Your task to perform on an android device: see tabs open on other devices in the chrome app Image 0: 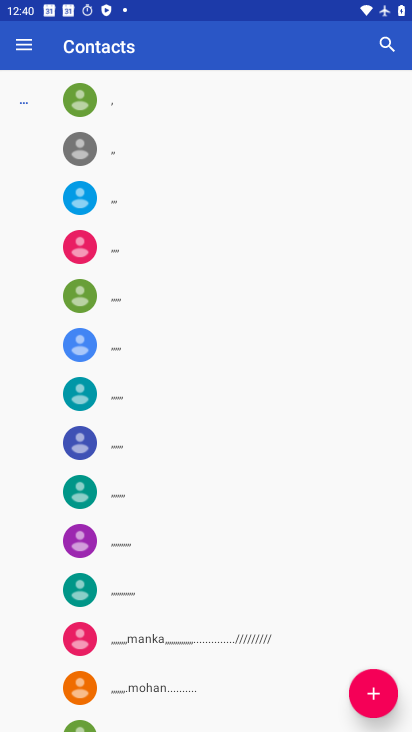
Step 0: press home button
Your task to perform on an android device: see tabs open on other devices in the chrome app Image 1: 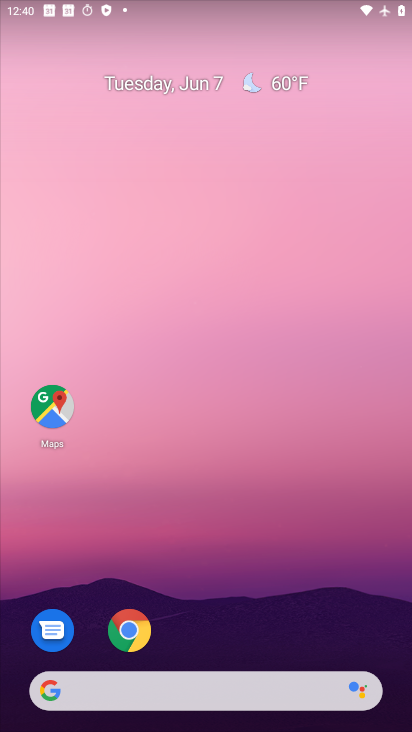
Step 1: drag from (371, 641) to (310, 53)
Your task to perform on an android device: see tabs open on other devices in the chrome app Image 2: 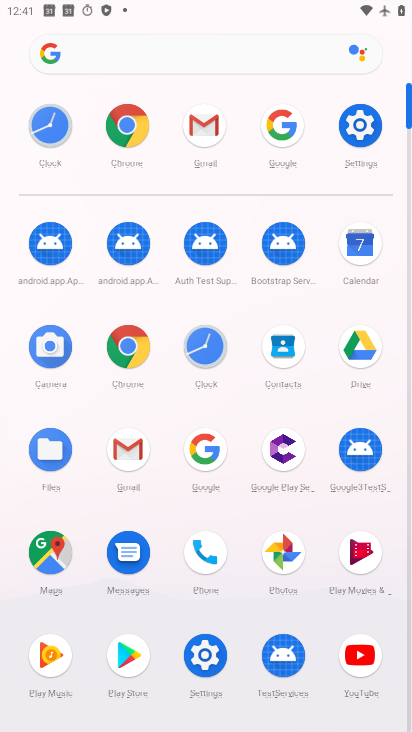
Step 2: click (142, 355)
Your task to perform on an android device: see tabs open on other devices in the chrome app Image 3: 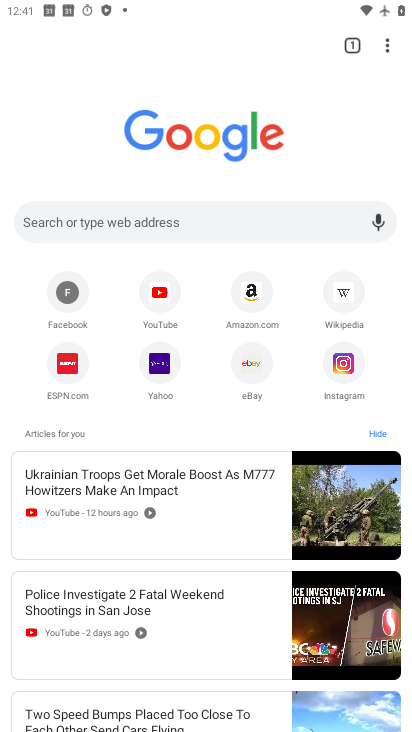
Step 3: task complete